Your task to perform on an android device: Do I have any events this weekend? Image 0: 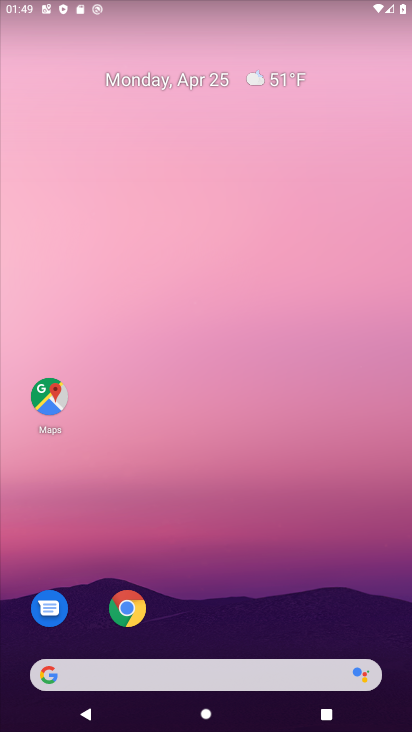
Step 0: drag from (217, 645) to (271, 8)
Your task to perform on an android device: Do I have any events this weekend? Image 1: 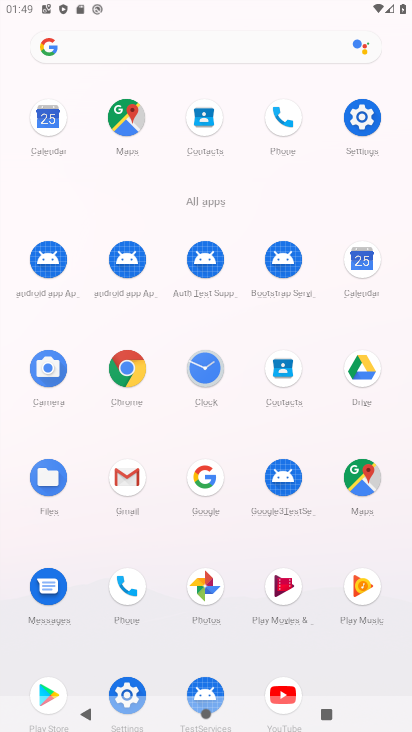
Step 1: click (361, 257)
Your task to perform on an android device: Do I have any events this weekend? Image 2: 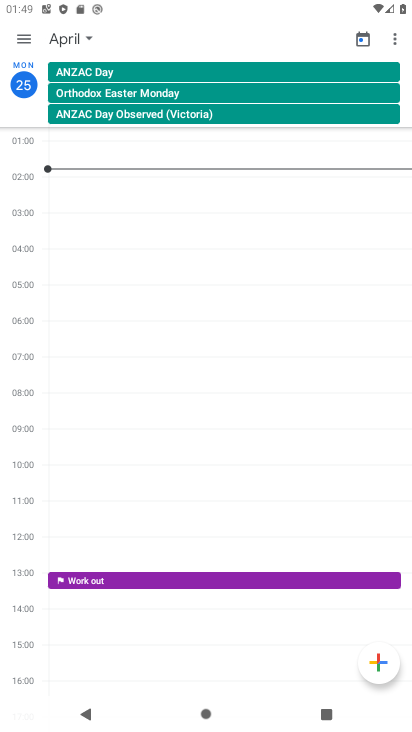
Step 2: click (14, 44)
Your task to perform on an android device: Do I have any events this weekend? Image 3: 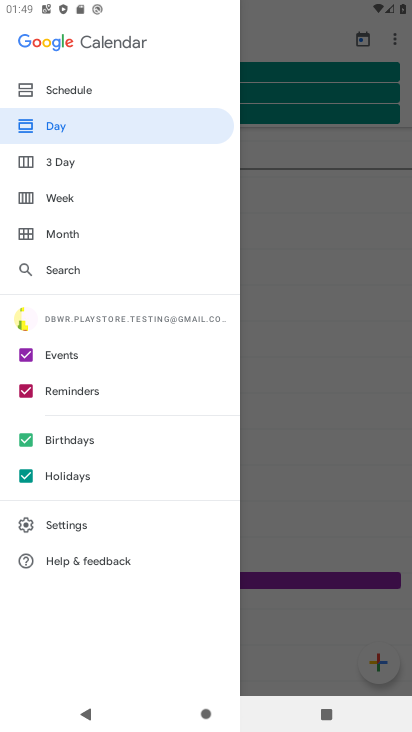
Step 3: click (25, 389)
Your task to perform on an android device: Do I have any events this weekend? Image 4: 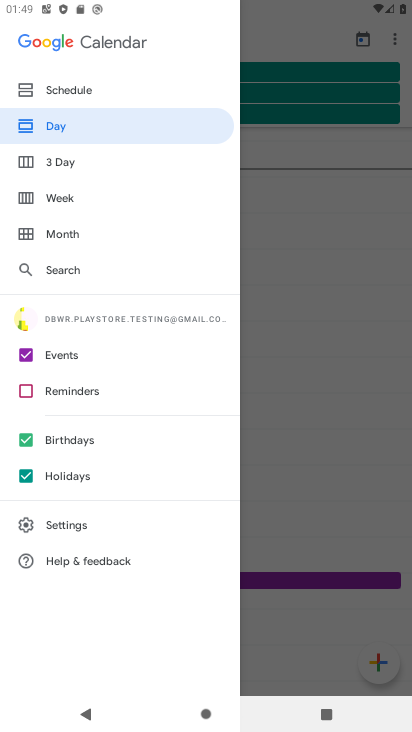
Step 4: click (23, 441)
Your task to perform on an android device: Do I have any events this weekend? Image 5: 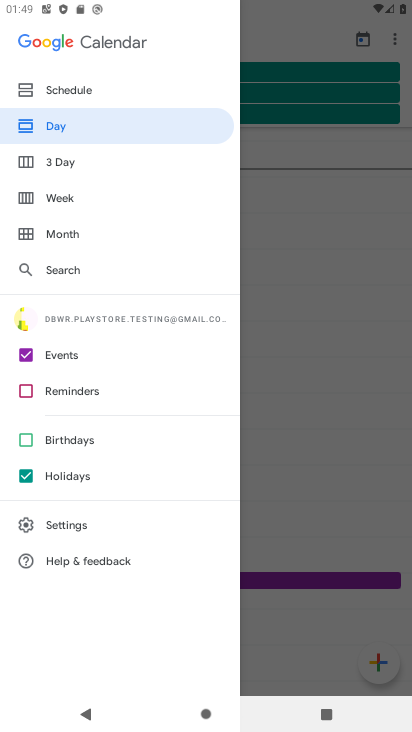
Step 5: click (24, 474)
Your task to perform on an android device: Do I have any events this weekend? Image 6: 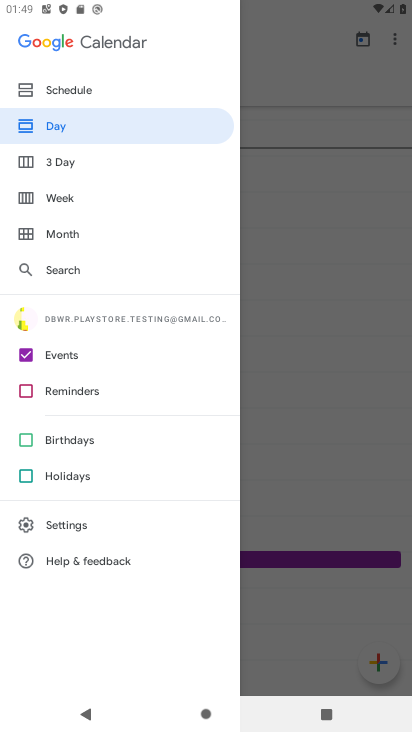
Step 6: click (69, 199)
Your task to perform on an android device: Do I have any events this weekend? Image 7: 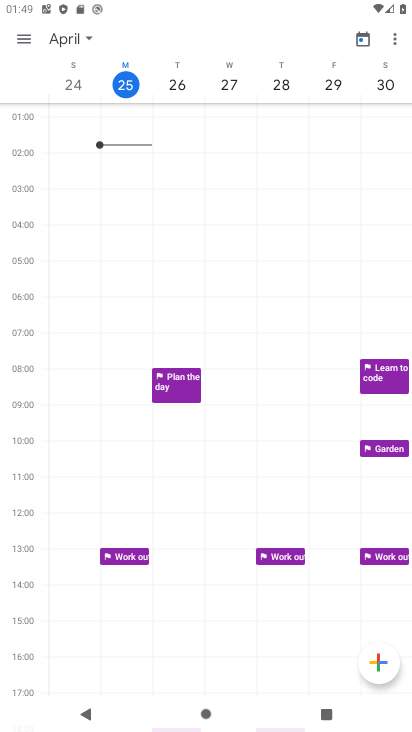
Step 7: task complete